Your task to perform on an android device: add a contact Image 0: 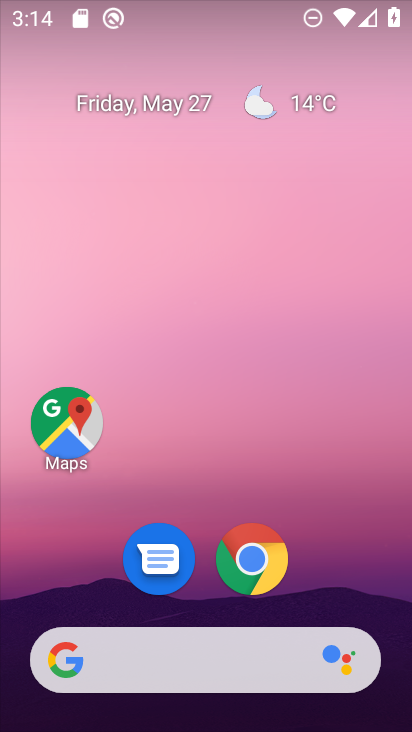
Step 0: press home button
Your task to perform on an android device: add a contact Image 1: 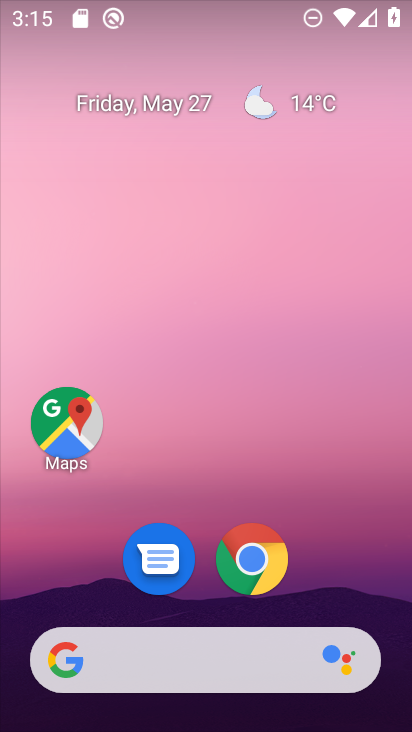
Step 1: drag from (215, 457) to (215, 210)
Your task to perform on an android device: add a contact Image 2: 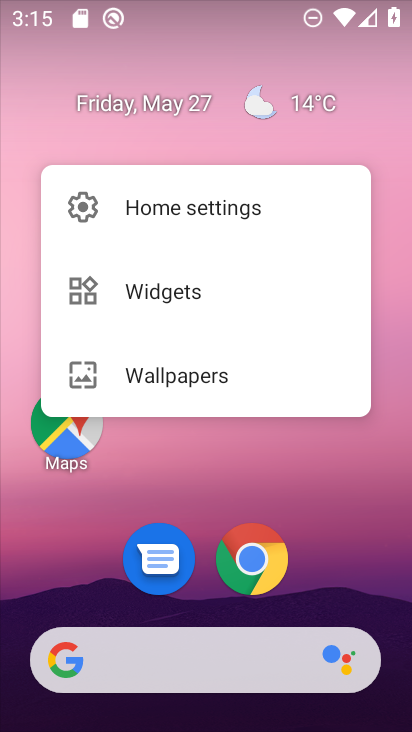
Step 2: click (295, 483)
Your task to perform on an android device: add a contact Image 3: 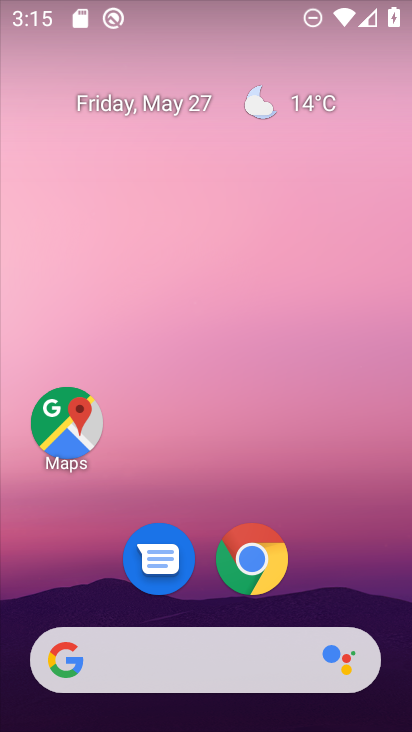
Step 3: drag from (319, 601) to (284, 8)
Your task to perform on an android device: add a contact Image 4: 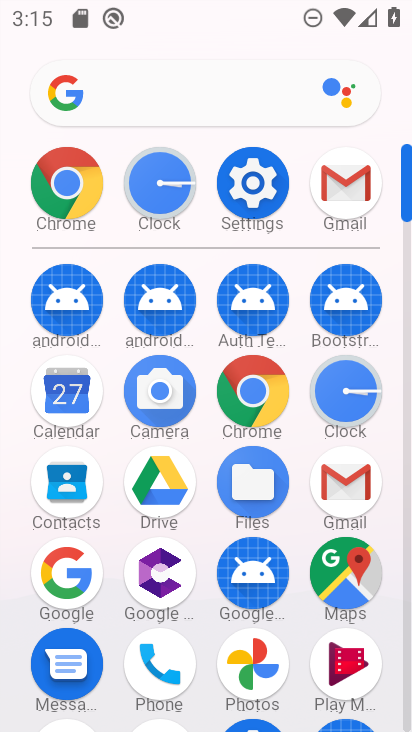
Step 4: click (64, 509)
Your task to perform on an android device: add a contact Image 5: 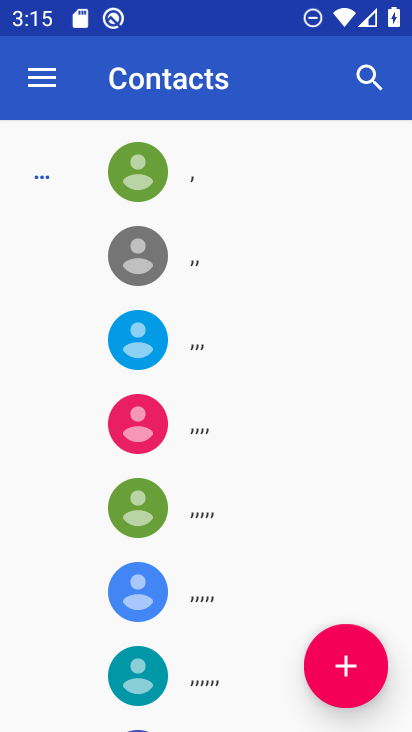
Step 5: click (352, 676)
Your task to perform on an android device: add a contact Image 6: 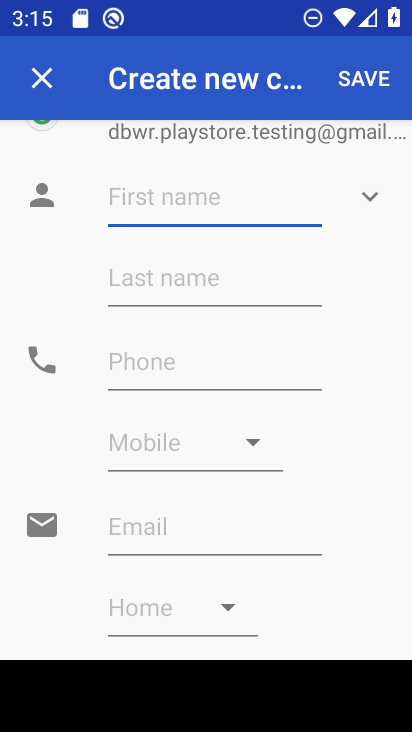
Step 6: type "assd"
Your task to perform on an android device: add a contact Image 7: 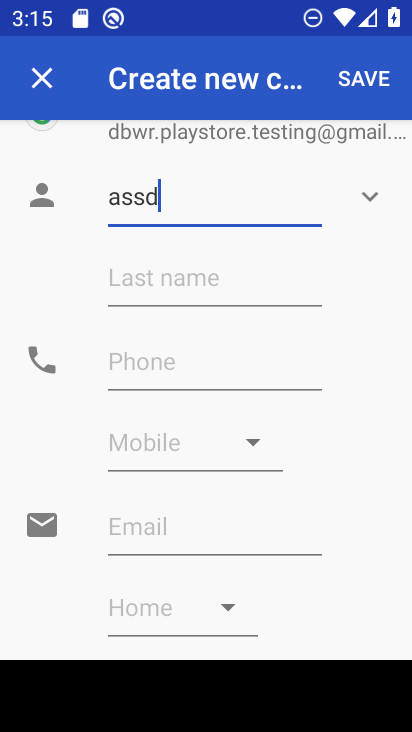
Step 7: click (182, 285)
Your task to perform on an android device: add a contact Image 8: 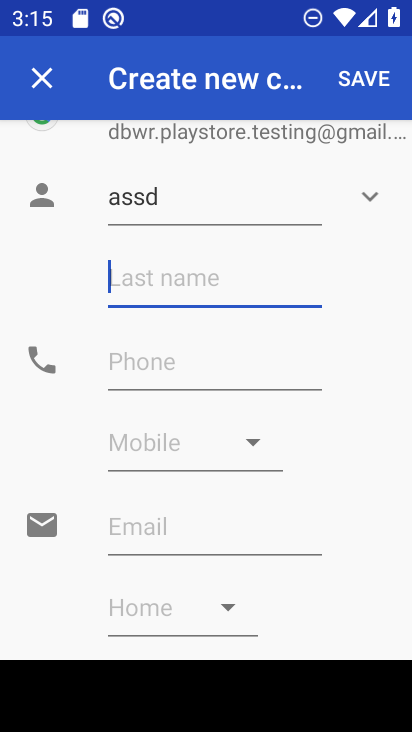
Step 8: click (205, 298)
Your task to perform on an android device: add a contact Image 9: 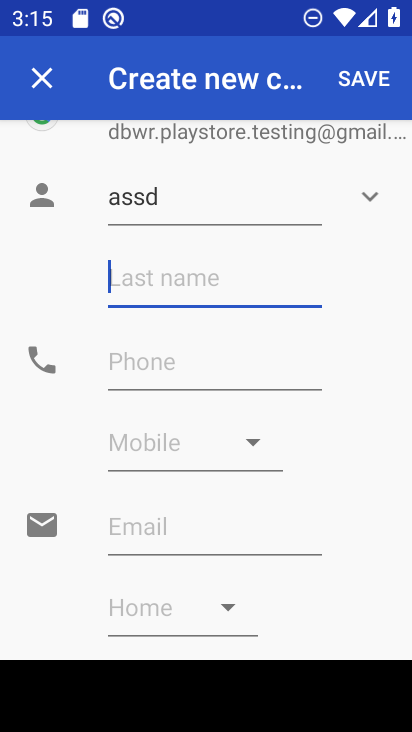
Step 9: click (203, 275)
Your task to perform on an android device: add a contact Image 10: 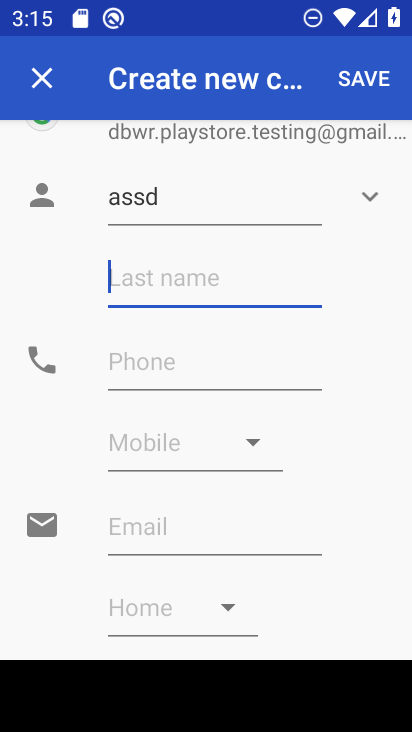
Step 10: click (158, 372)
Your task to perform on an android device: add a contact Image 11: 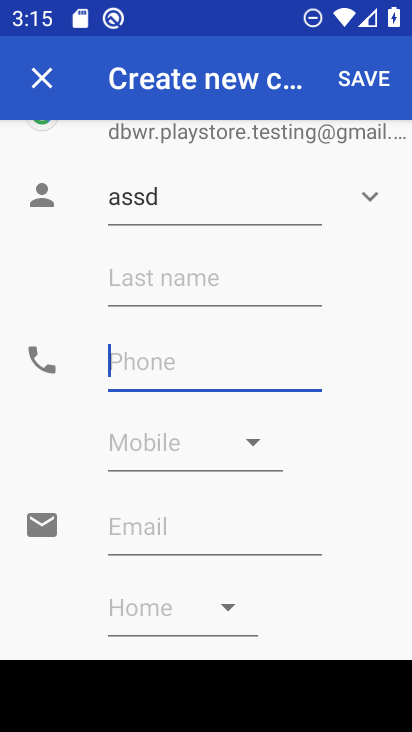
Step 11: click (151, 279)
Your task to perform on an android device: add a contact Image 12: 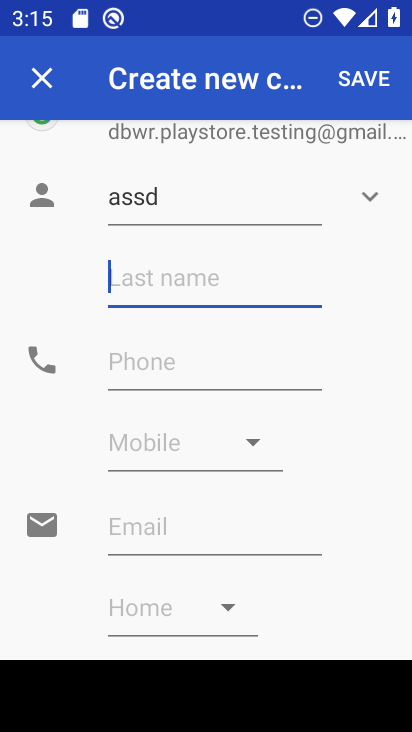
Step 12: type "fdg"
Your task to perform on an android device: add a contact Image 13: 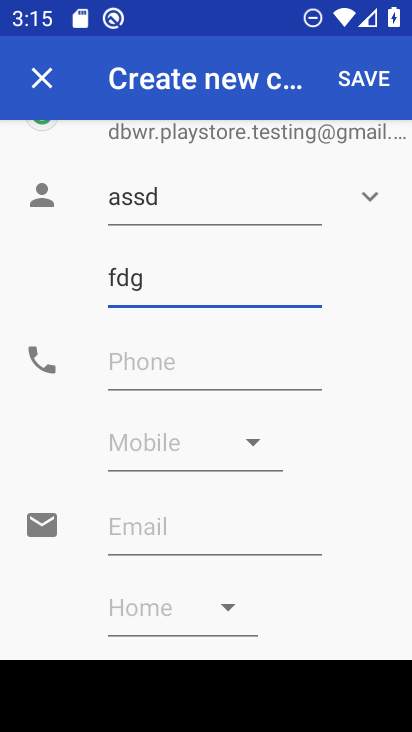
Step 13: click (158, 357)
Your task to perform on an android device: add a contact Image 14: 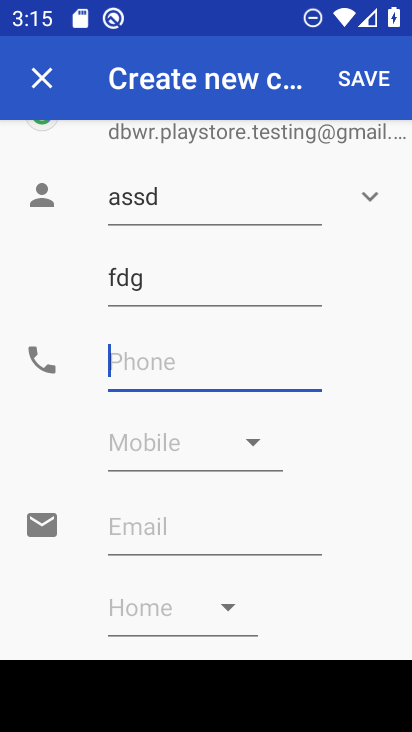
Step 14: type "9088789234"
Your task to perform on an android device: add a contact Image 15: 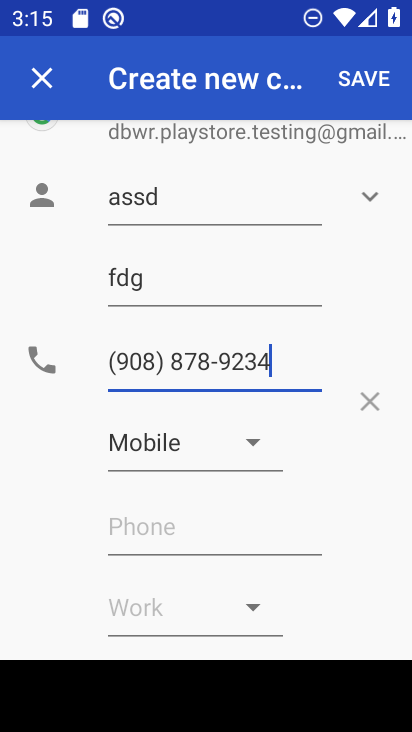
Step 15: click (365, 84)
Your task to perform on an android device: add a contact Image 16: 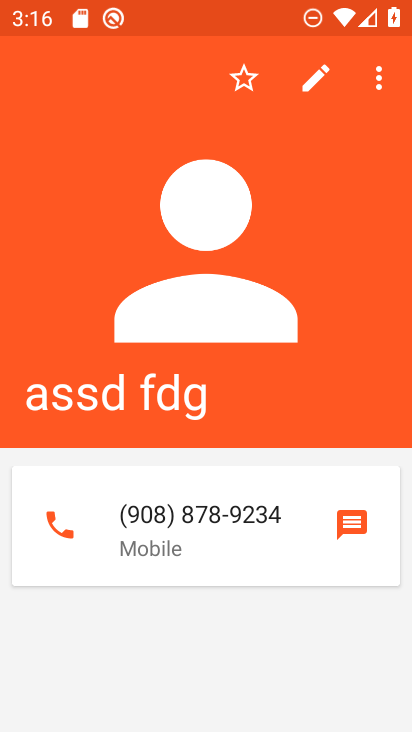
Step 16: task complete